Your task to perform on an android device: See recent photos Image 0: 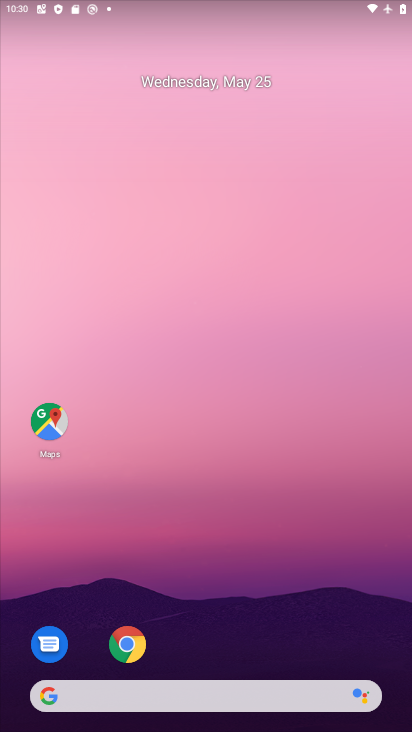
Step 0: drag from (225, 644) to (309, 122)
Your task to perform on an android device: See recent photos Image 1: 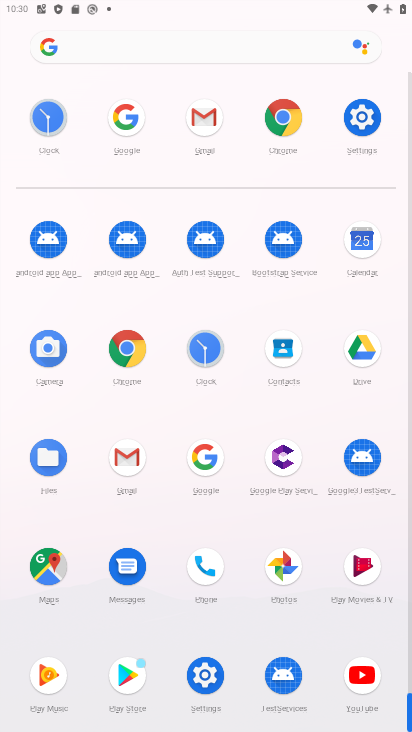
Step 1: click (289, 572)
Your task to perform on an android device: See recent photos Image 2: 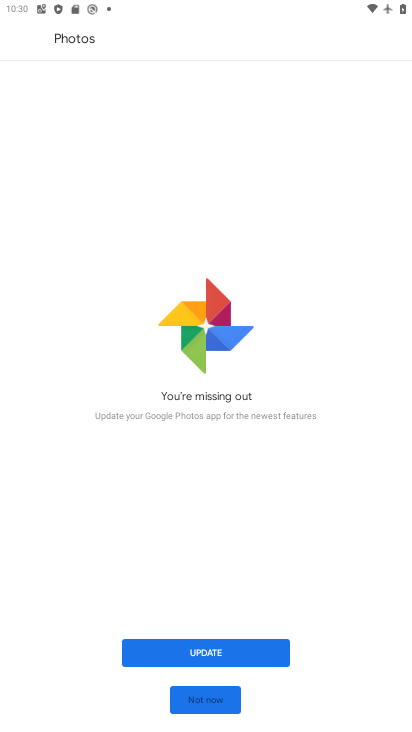
Step 2: click (222, 655)
Your task to perform on an android device: See recent photos Image 3: 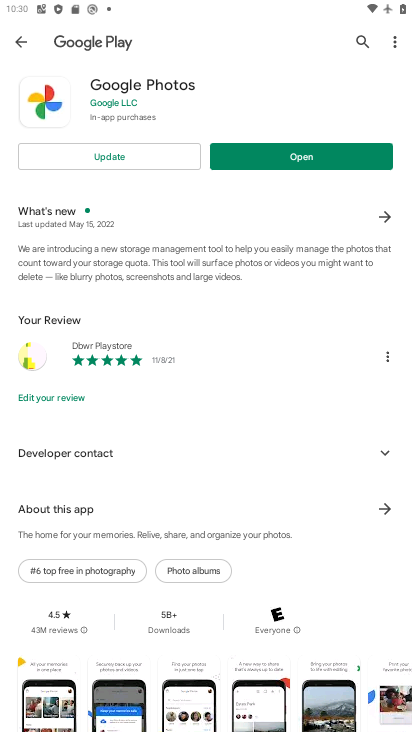
Step 3: click (144, 166)
Your task to perform on an android device: See recent photos Image 4: 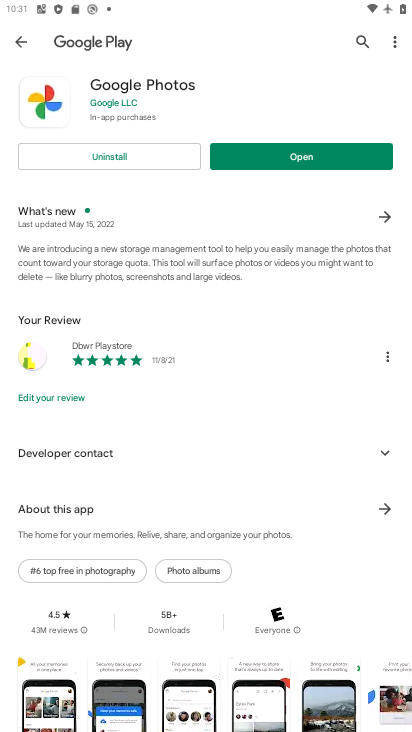
Step 4: click (283, 145)
Your task to perform on an android device: See recent photos Image 5: 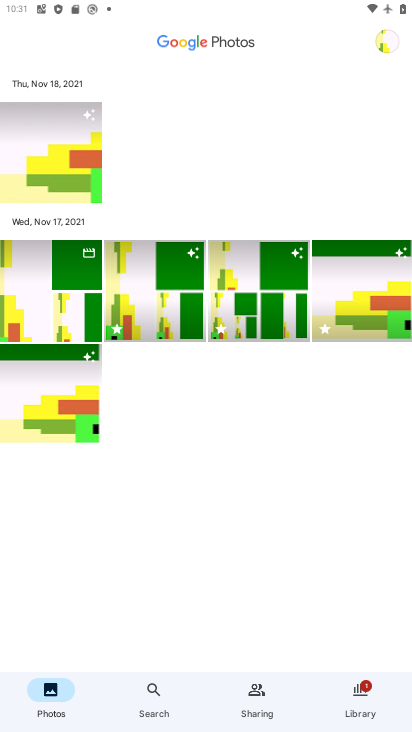
Step 5: task complete